Your task to perform on an android device: open chrome and create a bookmark for the current page Image 0: 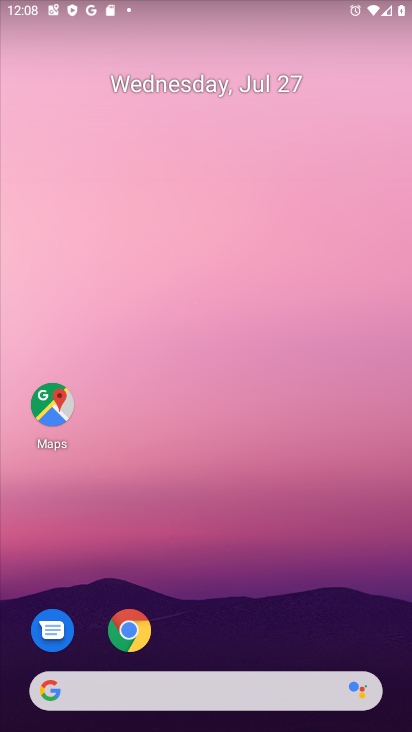
Step 0: click (131, 628)
Your task to perform on an android device: open chrome and create a bookmark for the current page Image 1: 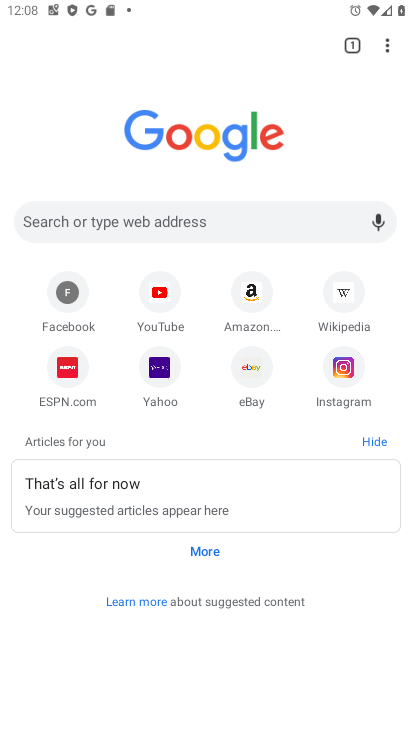
Step 1: click (386, 39)
Your task to perform on an android device: open chrome and create a bookmark for the current page Image 2: 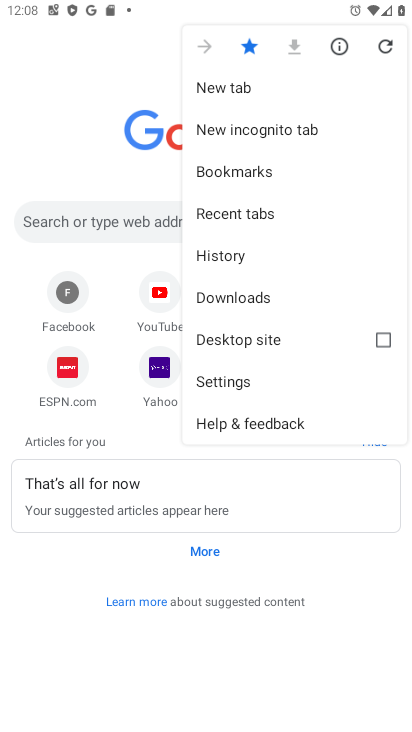
Step 2: task complete